Your task to perform on an android device: Do I have any events this weekend? Image 0: 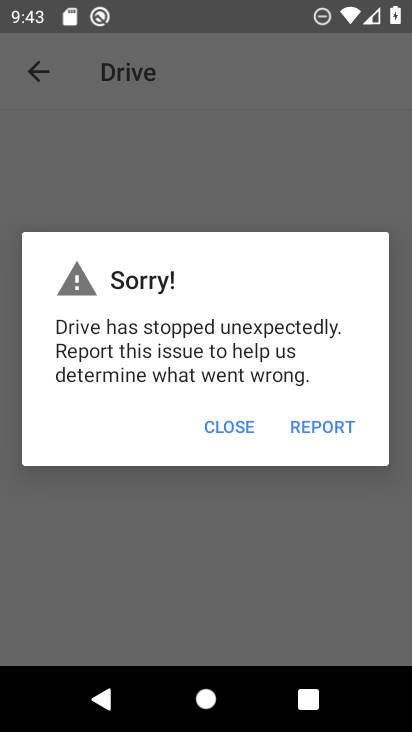
Step 0: press home button
Your task to perform on an android device: Do I have any events this weekend? Image 1: 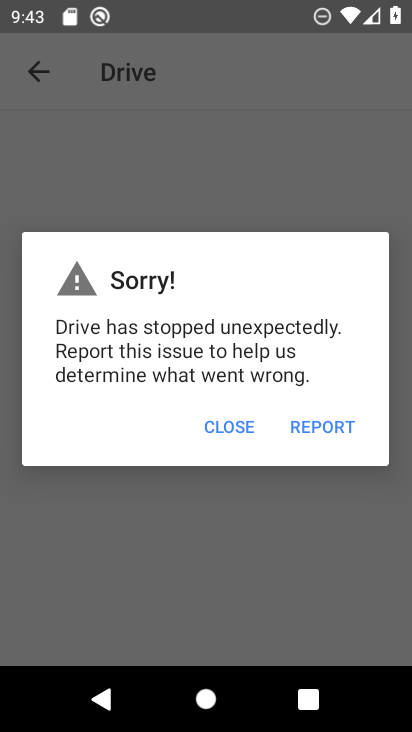
Step 1: press home button
Your task to perform on an android device: Do I have any events this weekend? Image 2: 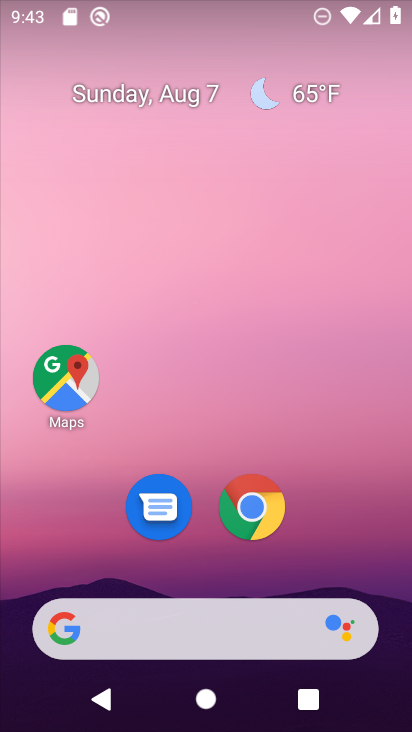
Step 2: drag from (315, 402) to (306, 9)
Your task to perform on an android device: Do I have any events this weekend? Image 3: 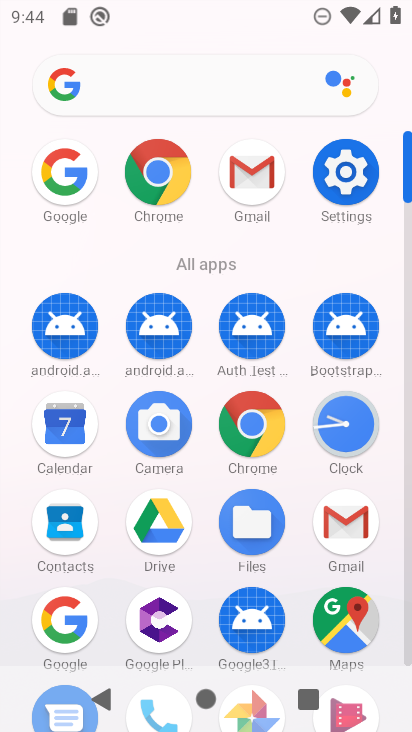
Step 3: click (52, 429)
Your task to perform on an android device: Do I have any events this weekend? Image 4: 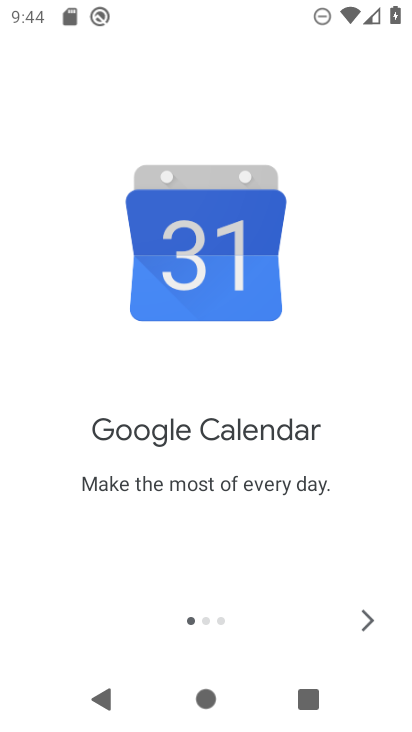
Step 4: click (368, 635)
Your task to perform on an android device: Do I have any events this weekend? Image 5: 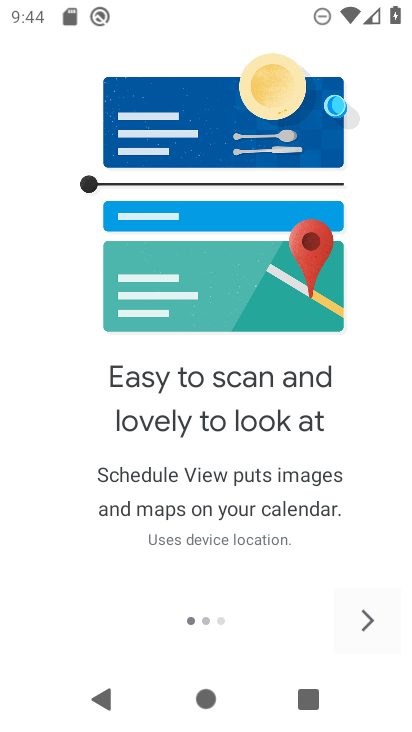
Step 5: click (368, 635)
Your task to perform on an android device: Do I have any events this weekend? Image 6: 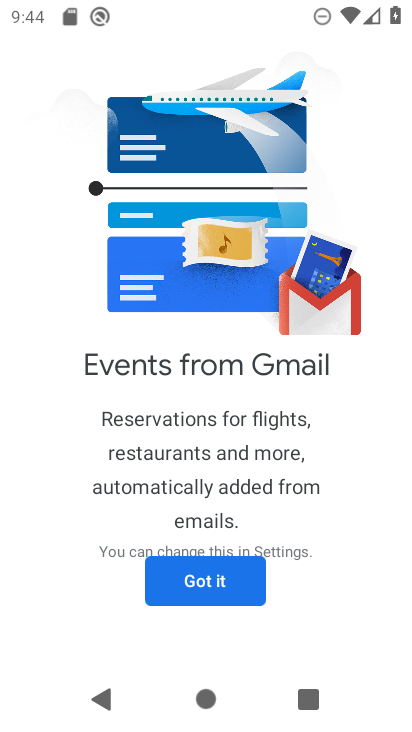
Step 6: click (205, 583)
Your task to perform on an android device: Do I have any events this weekend? Image 7: 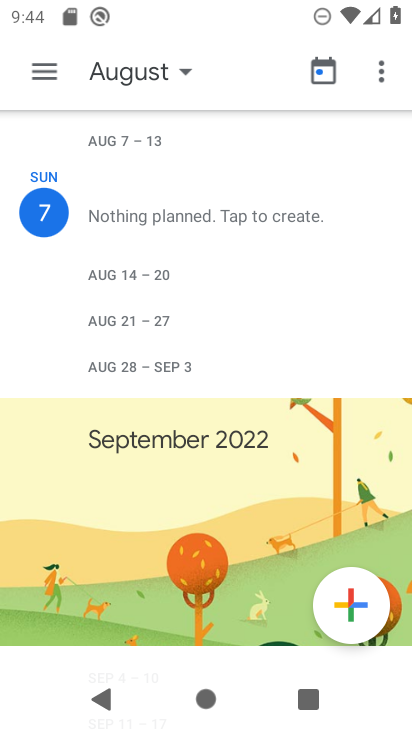
Step 7: click (35, 71)
Your task to perform on an android device: Do I have any events this weekend? Image 8: 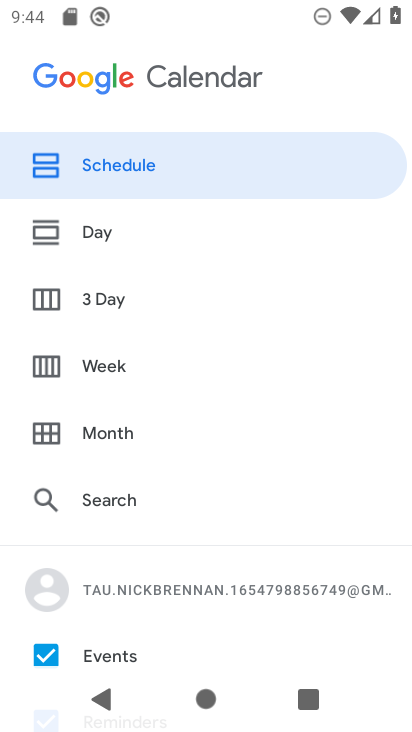
Step 8: click (98, 290)
Your task to perform on an android device: Do I have any events this weekend? Image 9: 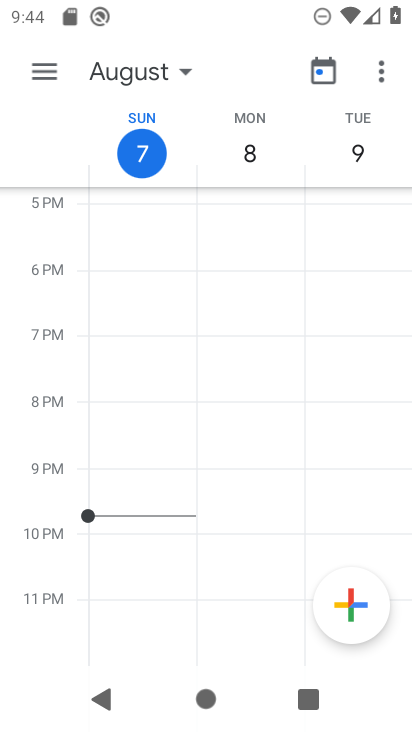
Step 9: task complete